Your task to perform on an android device: turn off location Image 0: 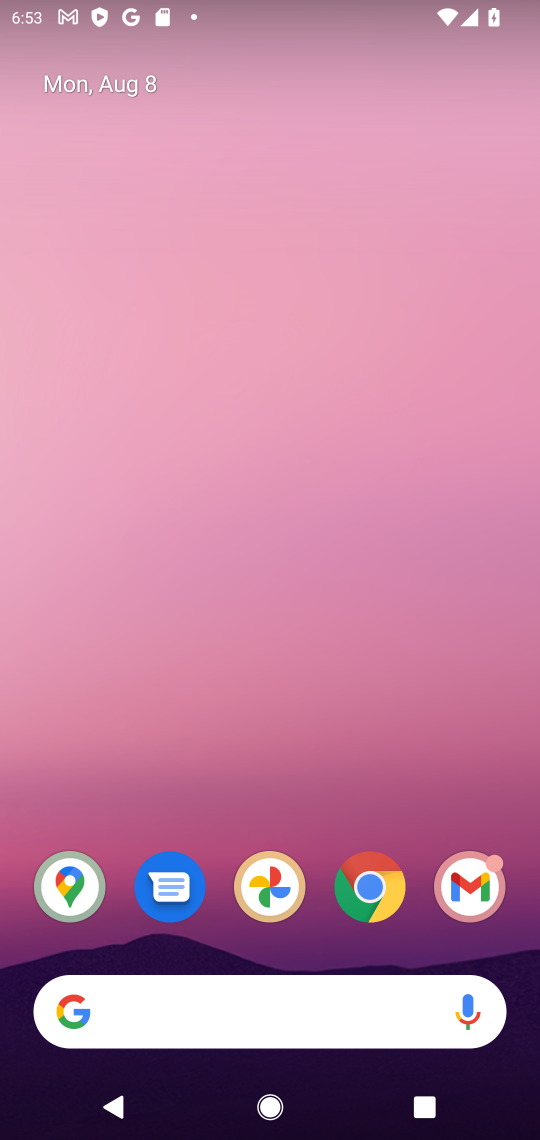
Step 0: click (75, 889)
Your task to perform on an android device: turn off location Image 1: 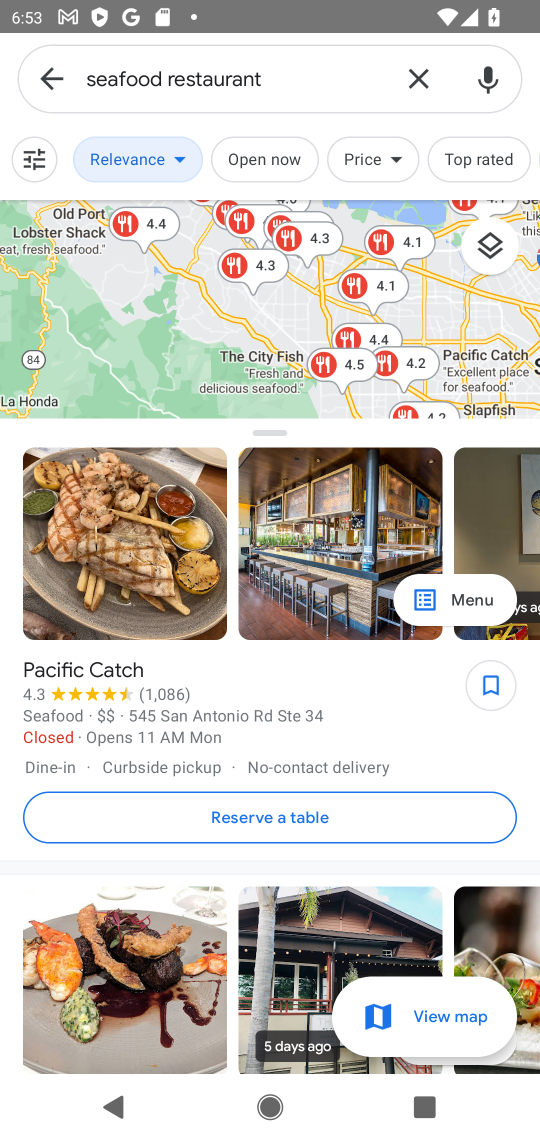
Step 1: click (57, 99)
Your task to perform on an android device: turn off location Image 2: 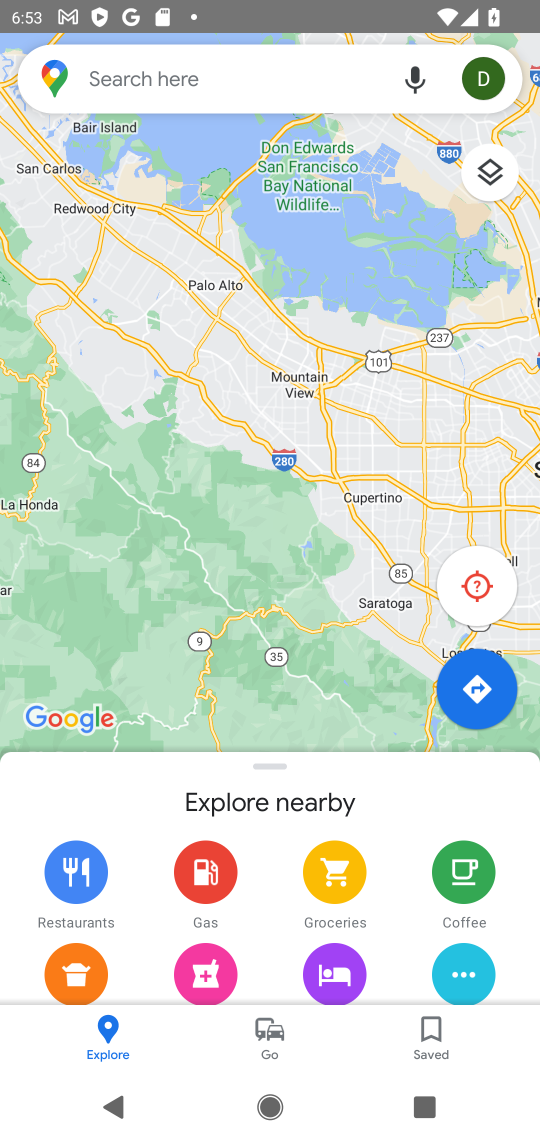
Step 2: click (499, 66)
Your task to perform on an android device: turn off location Image 3: 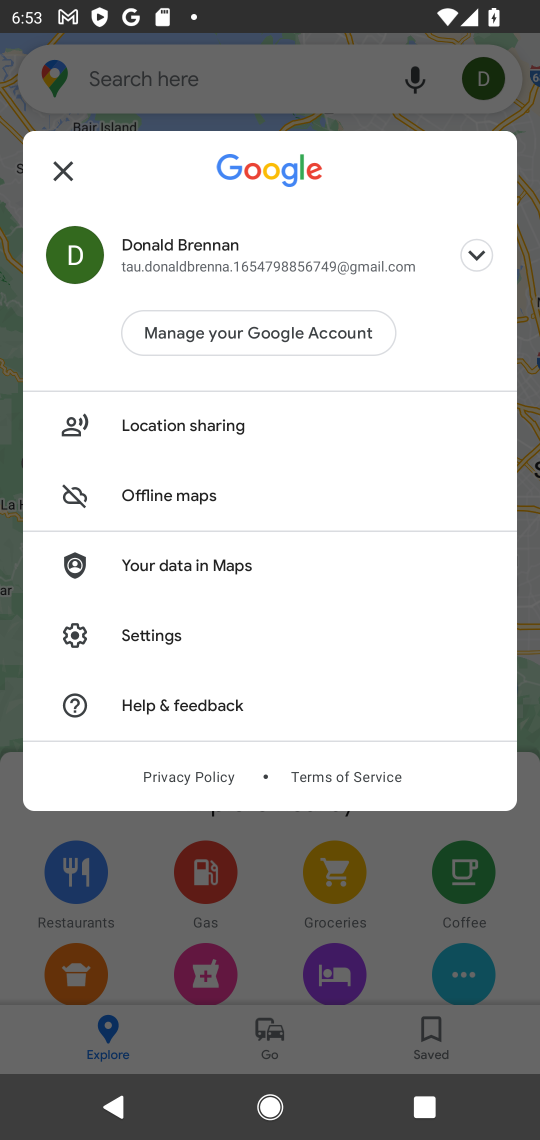
Step 3: click (191, 637)
Your task to perform on an android device: turn off location Image 4: 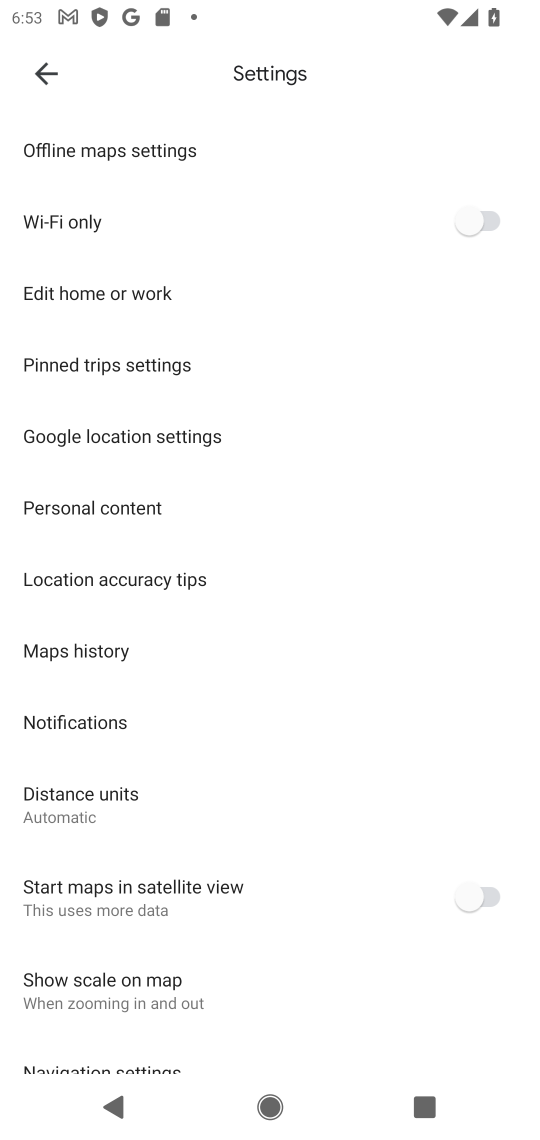
Step 4: task complete